Your task to perform on an android device: open device folders in google photos Image 0: 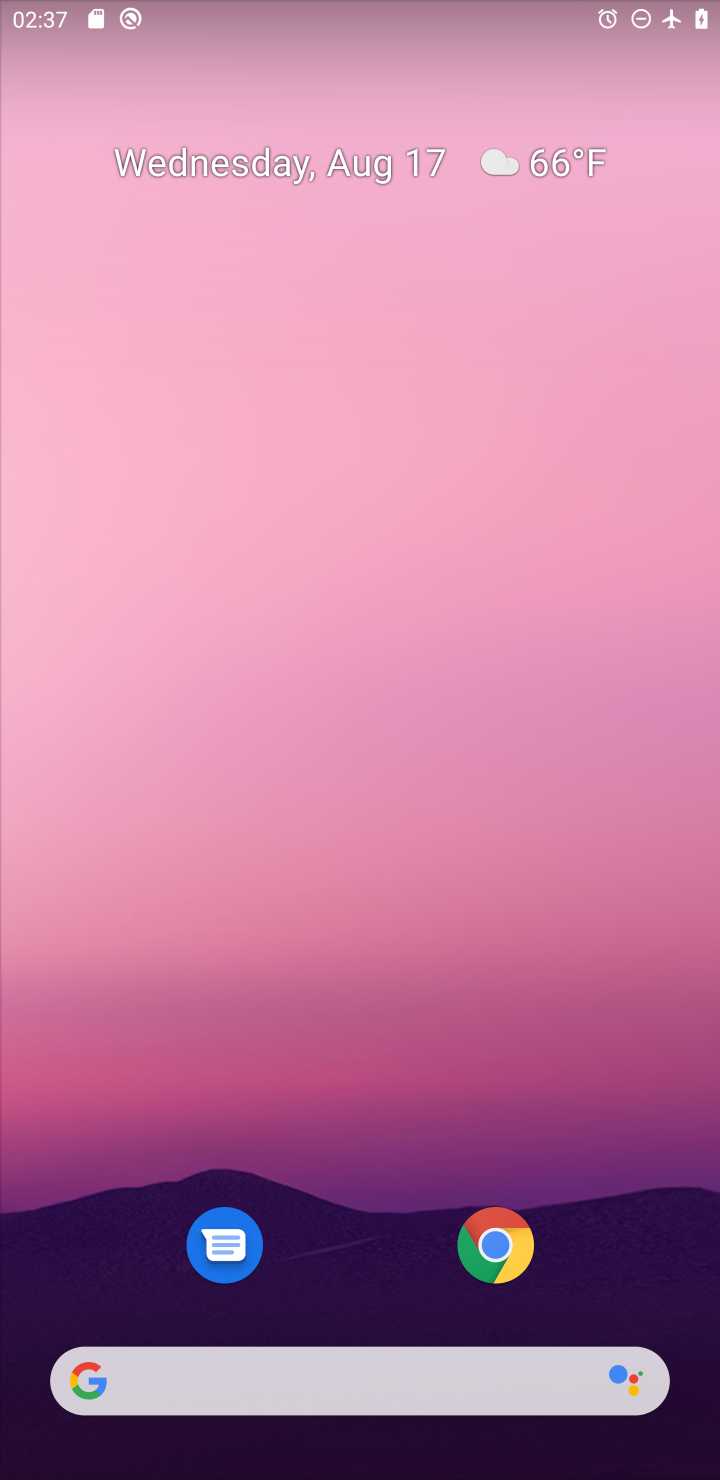
Step 0: drag from (345, 1295) to (328, 162)
Your task to perform on an android device: open device folders in google photos Image 1: 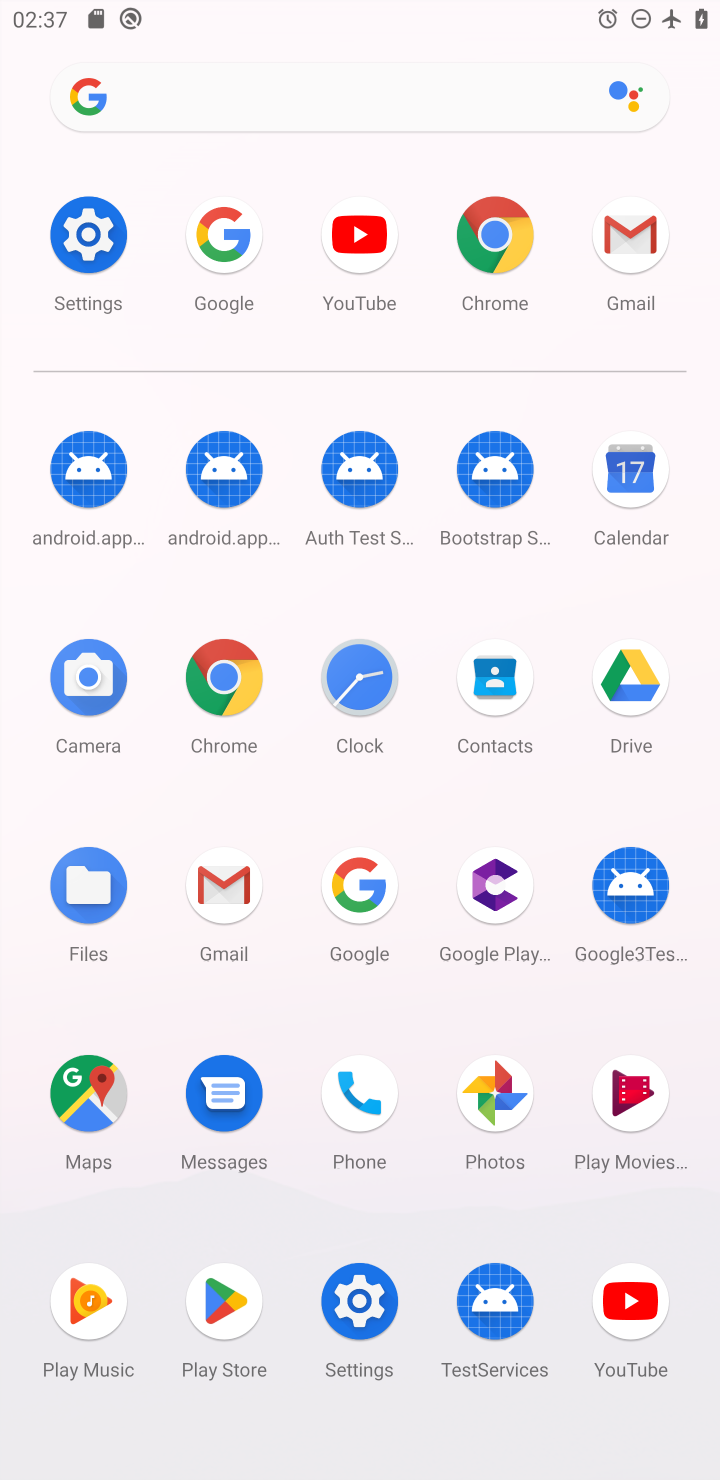
Step 1: click (500, 1094)
Your task to perform on an android device: open device folders in google photos Image 2: 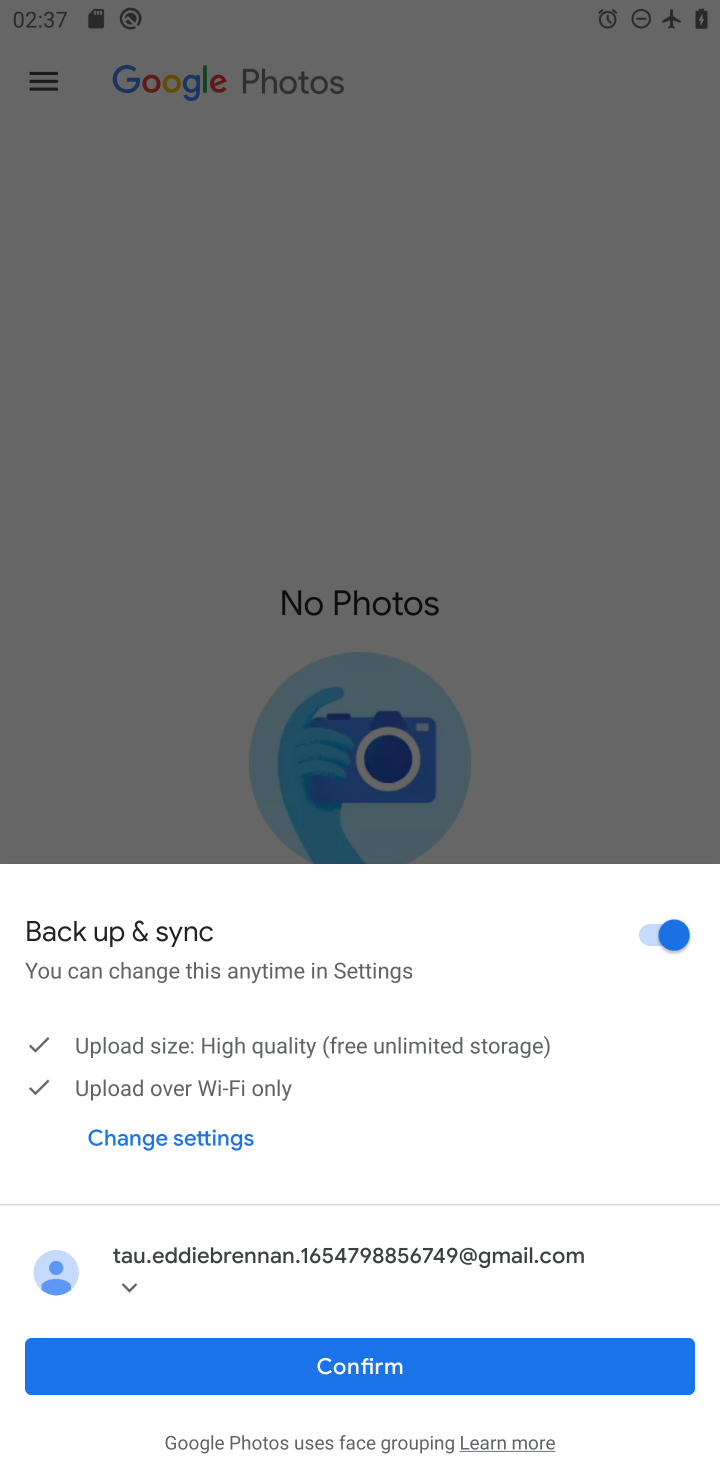
Step 2: click (356, 1370)
Your task to perform on an android device: open device folders in google photos Image 3: 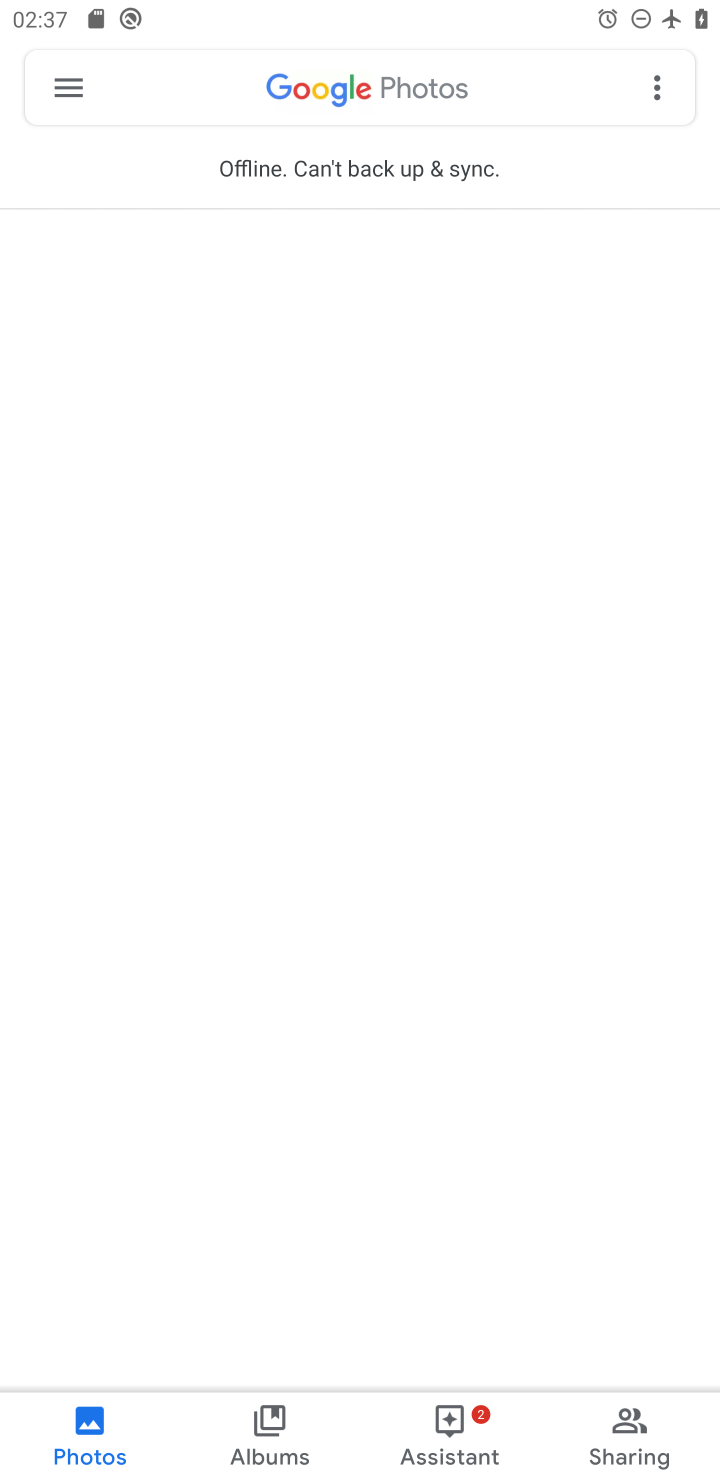
Step 3: click (71, 87)
Your task to perform on an android device: open device folders in google photos Image 4: 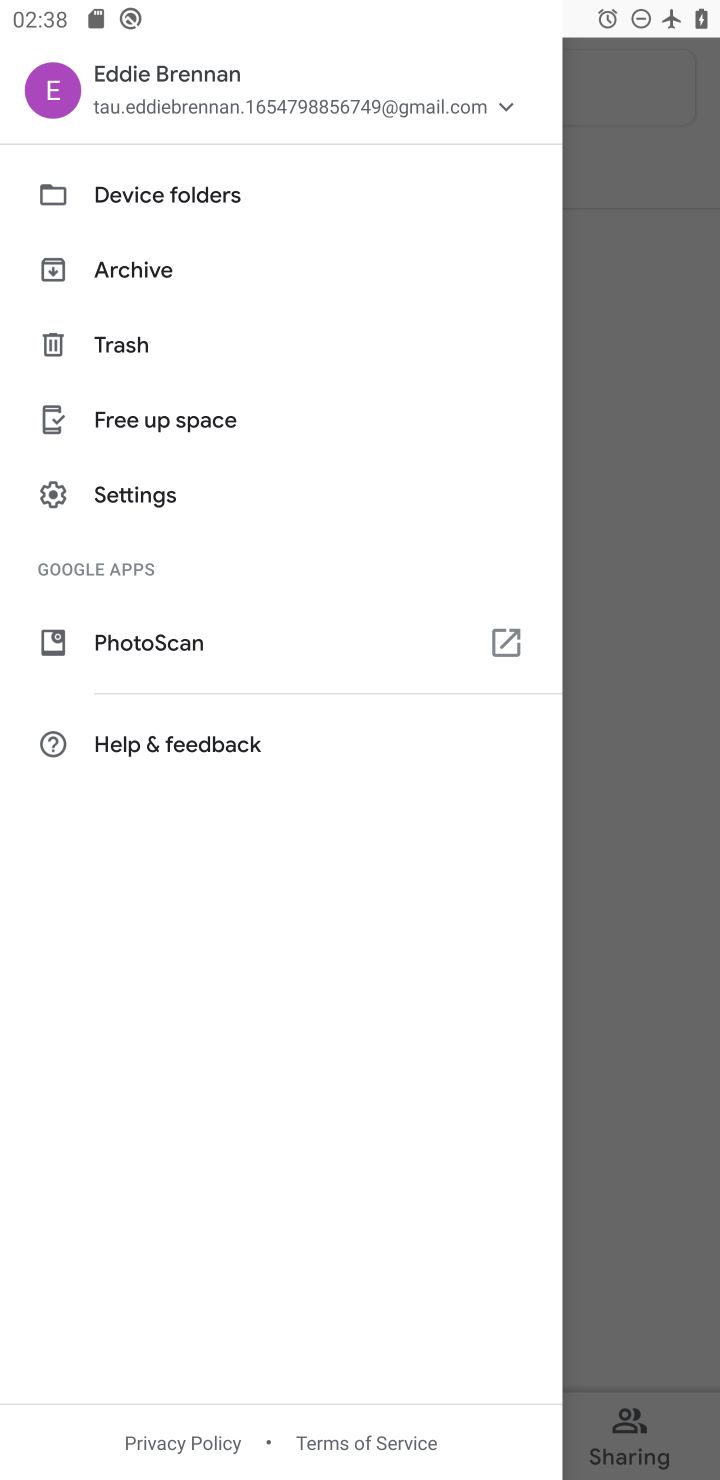
Step 4: click (148, 185)
Your task to perform on an android device: open device folders in google photos Image 5: 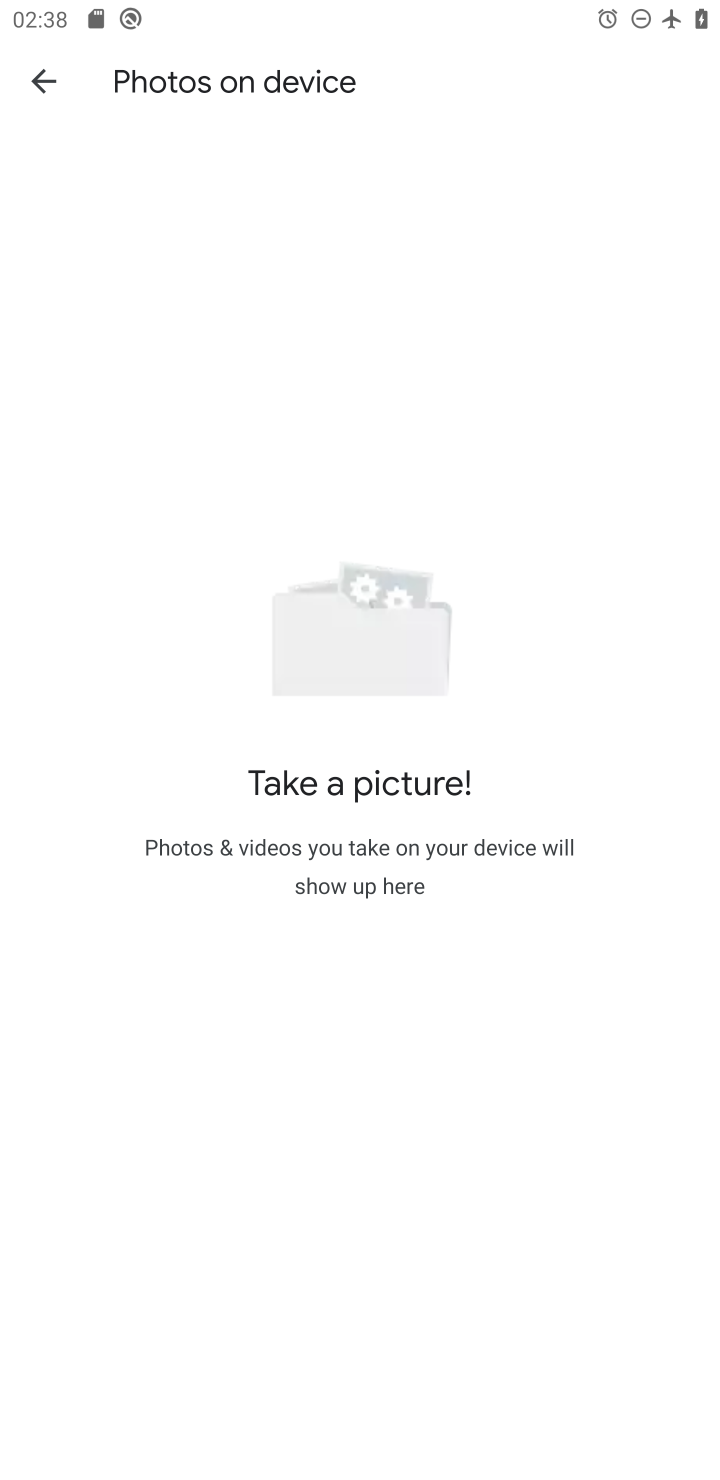
Step 5: task complete